Your task to perform on an android device: Open display settings Image 0: 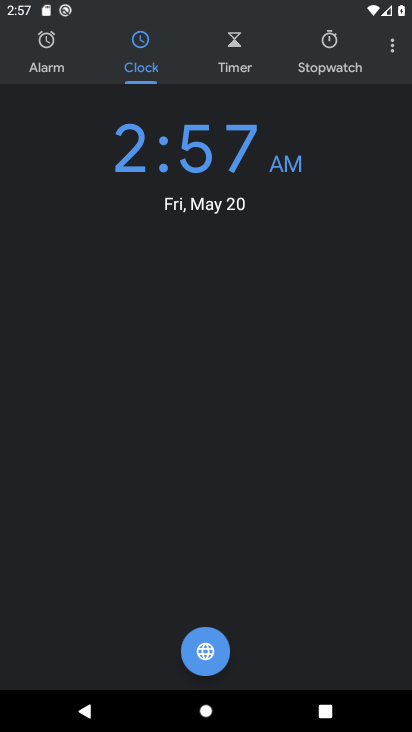
Step 0: press home button
Your task to perform on an android device: Open display settings Image 1: 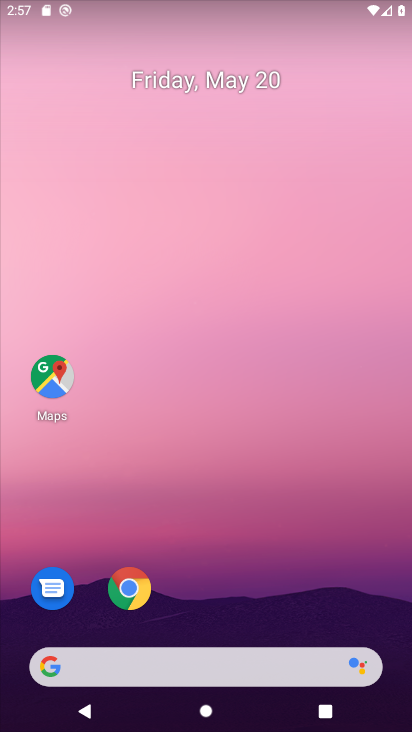
Step 1: drag from (275, 528) to (285, 128)
Your task to perform on an android device: Open display settings Image 2: 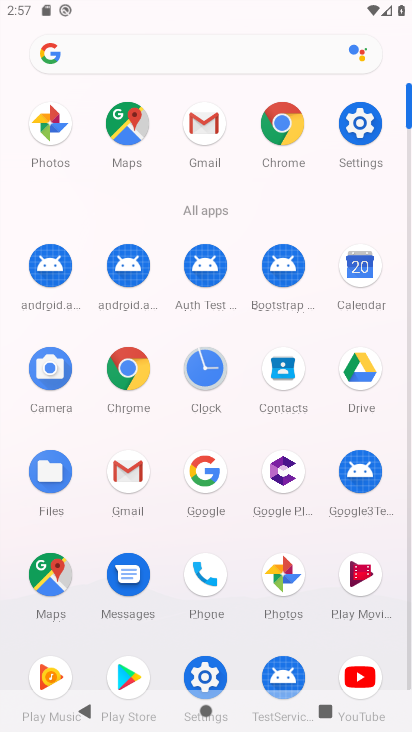
Step 2: click (369, 114)
Your task to perform on an android device: Open display settings Image 3: 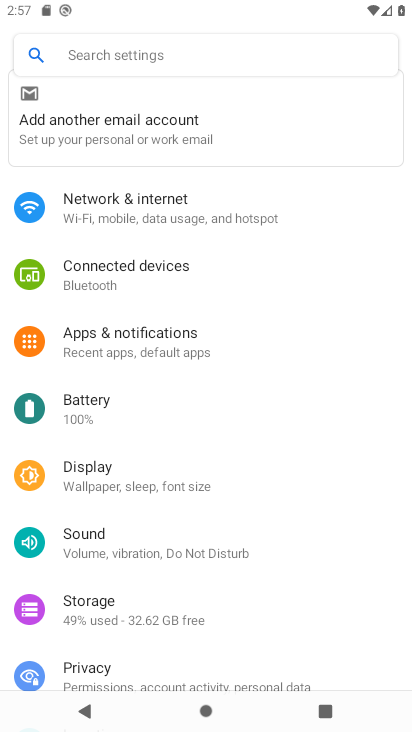
Step 3: click (118, 487)
Your task to perform on an android device: Open display settings Image 4: 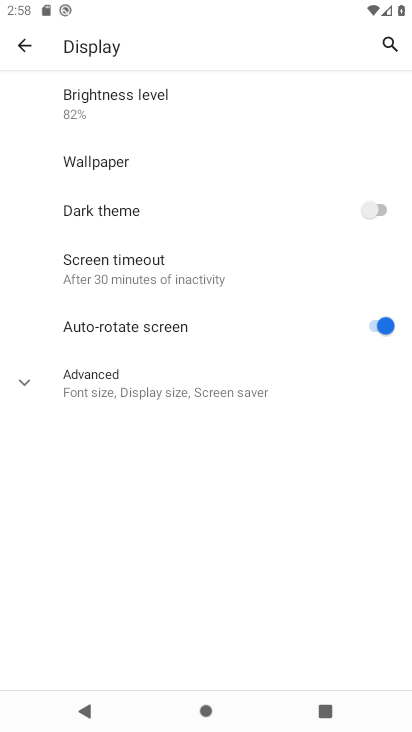
Step 4: task complete